Your task to perform on an android device: toggle priority inbox in the gmail app Image 0: 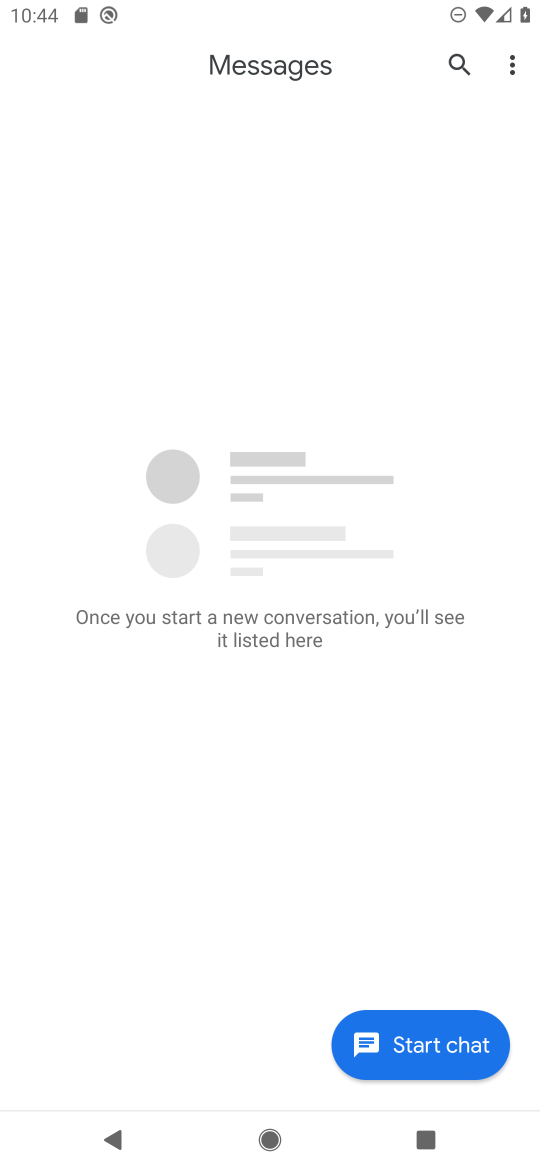
Step 0: press home button
Your task to perform on an android device: toggle priority inbox in the gmail app Image 1: 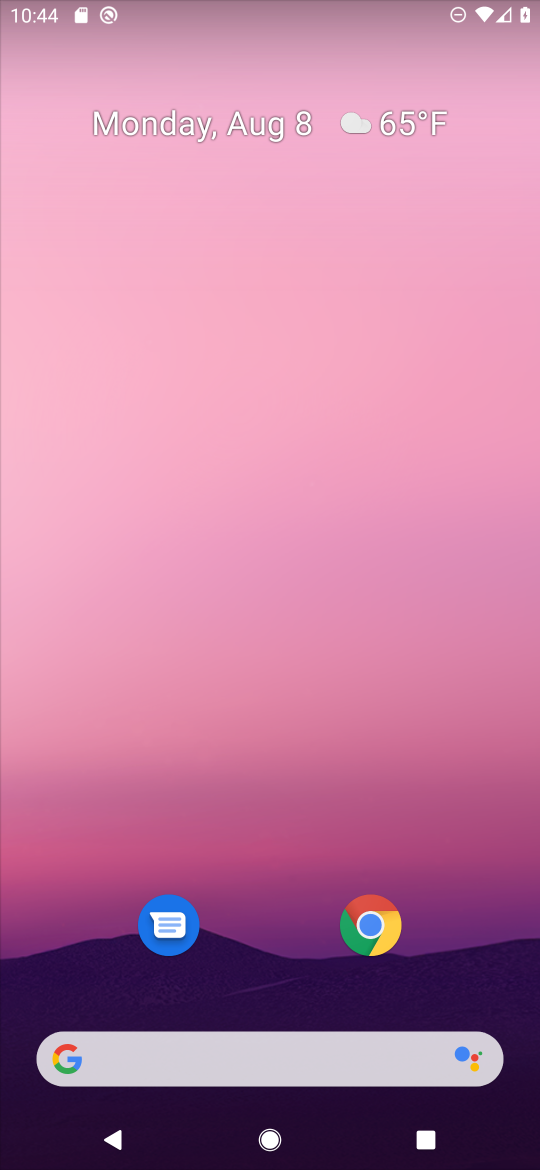
Step 1: click (268, 135)
Your task to perform on an android device: toggle priority inbox in the gmail app Image 2: 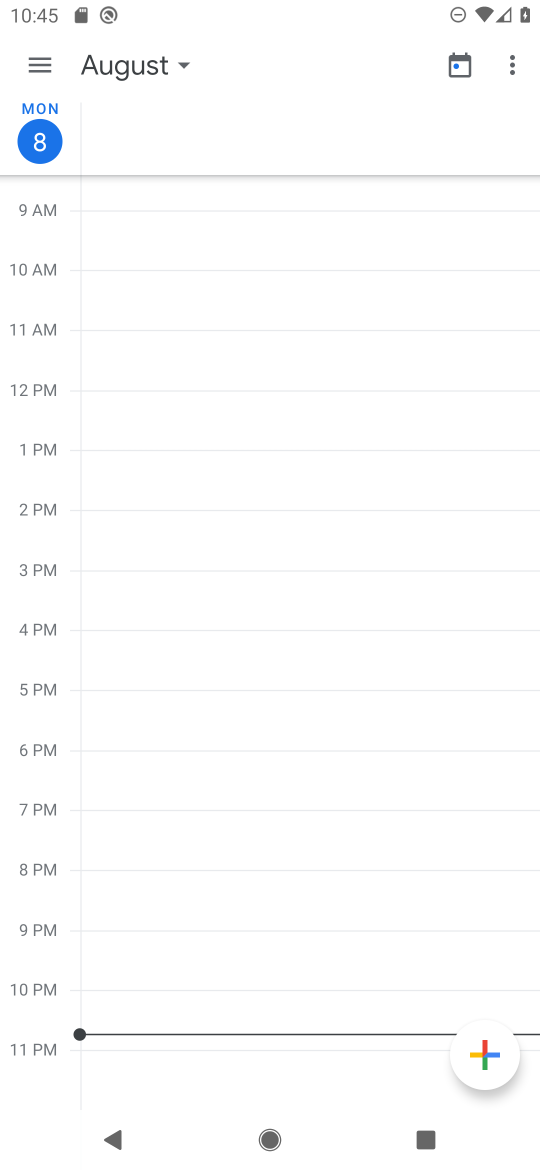
Step 2: press home button
Your task to perform on an android device: toggle priority inbox in the gmail app Image 3: 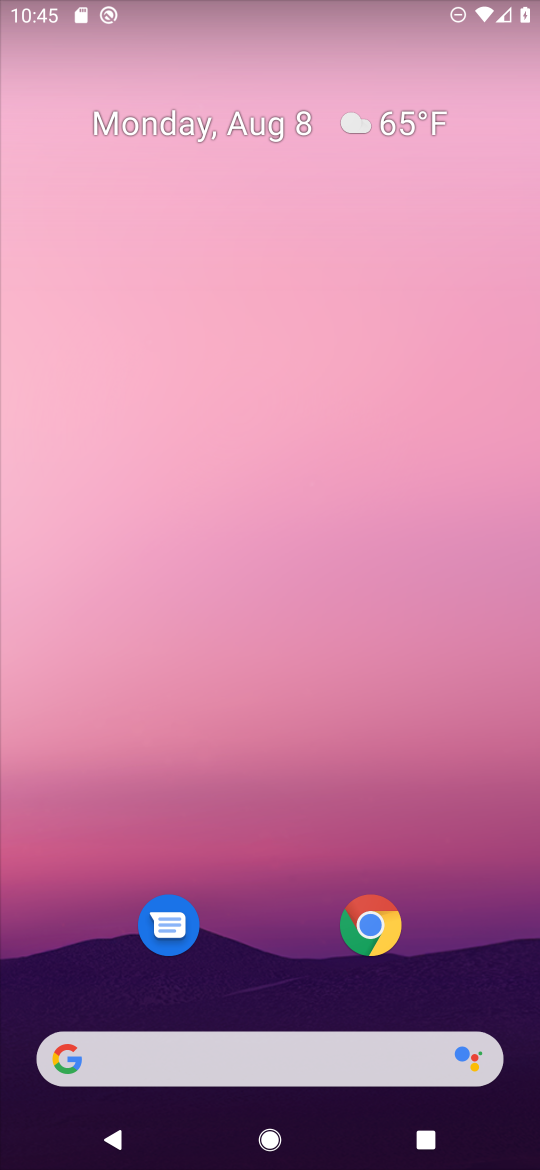
Step 3: drag from (255, 890) to (316, 88)
Your task to perform on an android device: toggle priority inbox in the gmail app Image 4: 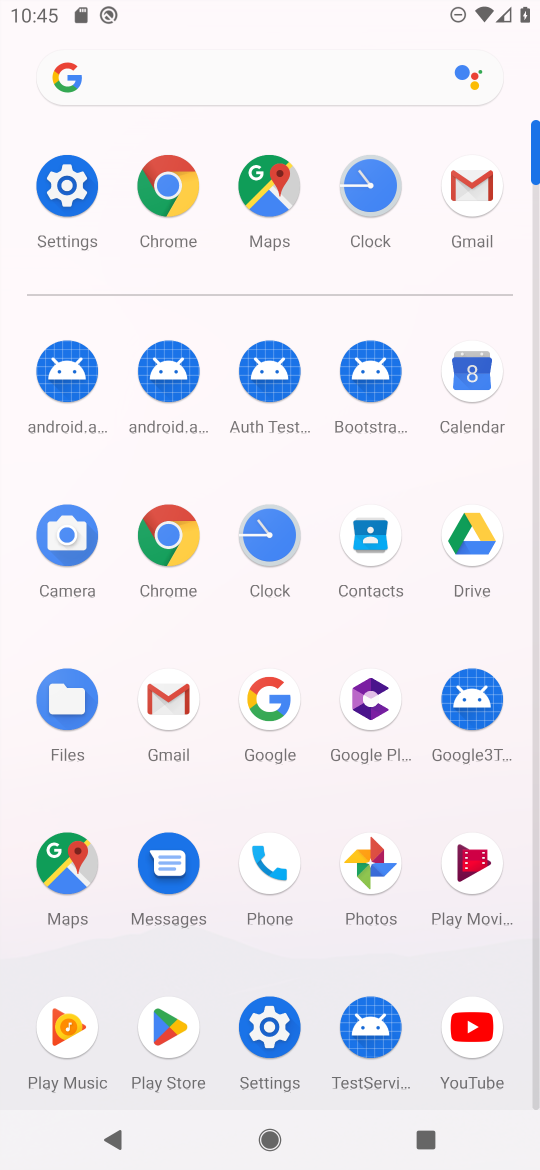
Step 4: click (169, 700)
Your task to perform on an android device: toggle priority inbox in the gmail app Image 5: 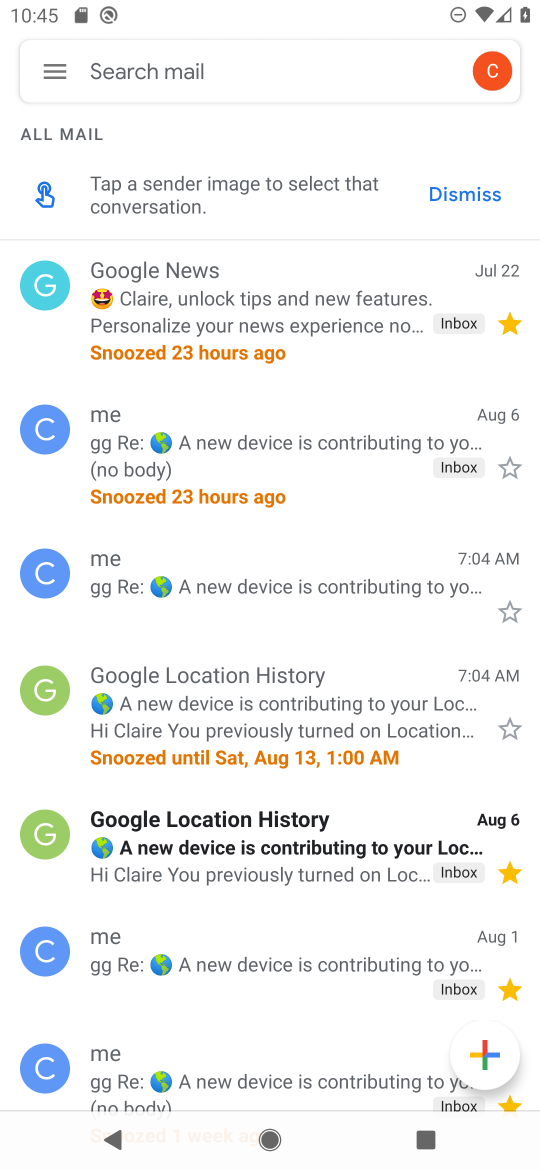
Step 5: click (49, 76)
Your task to perform on an android device: toggle priority inbox in the gmail app Image 6: 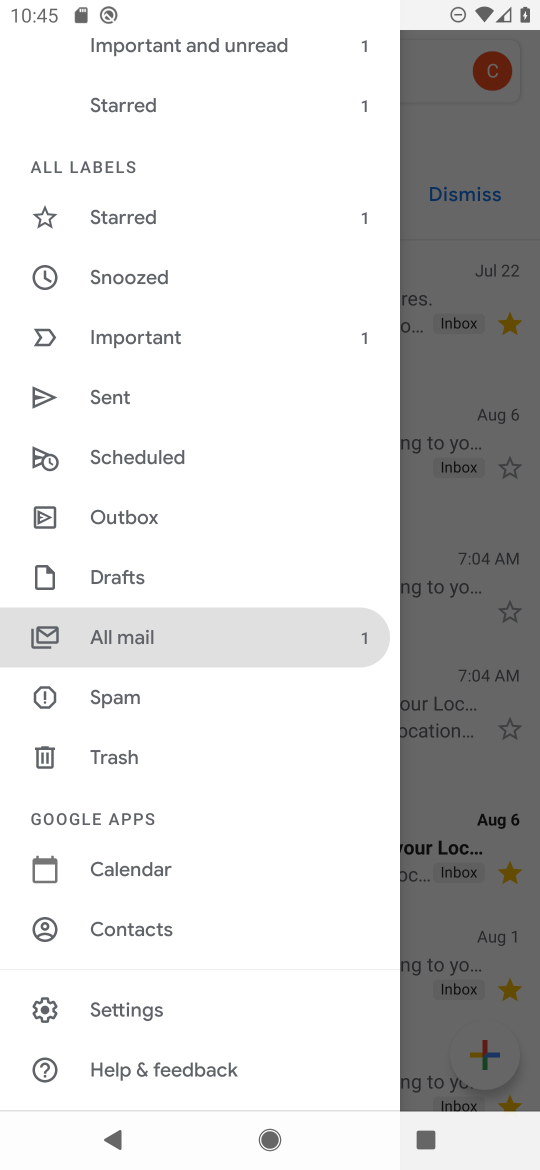
Step 6: drag from (206, 997) to (231, 355)
Your task to perform on an android device: toggle priority inbox in the gmail app Image 7: 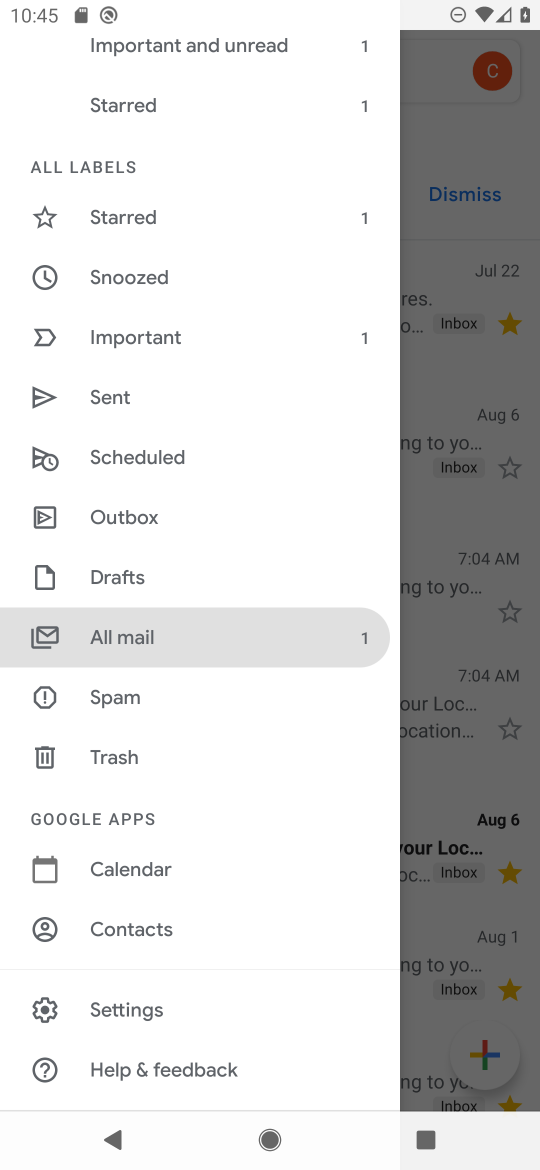
Step 7: click (127, 1019)
Your task to perform on an android device: toggle priority inbox in the gmail app Image 8: 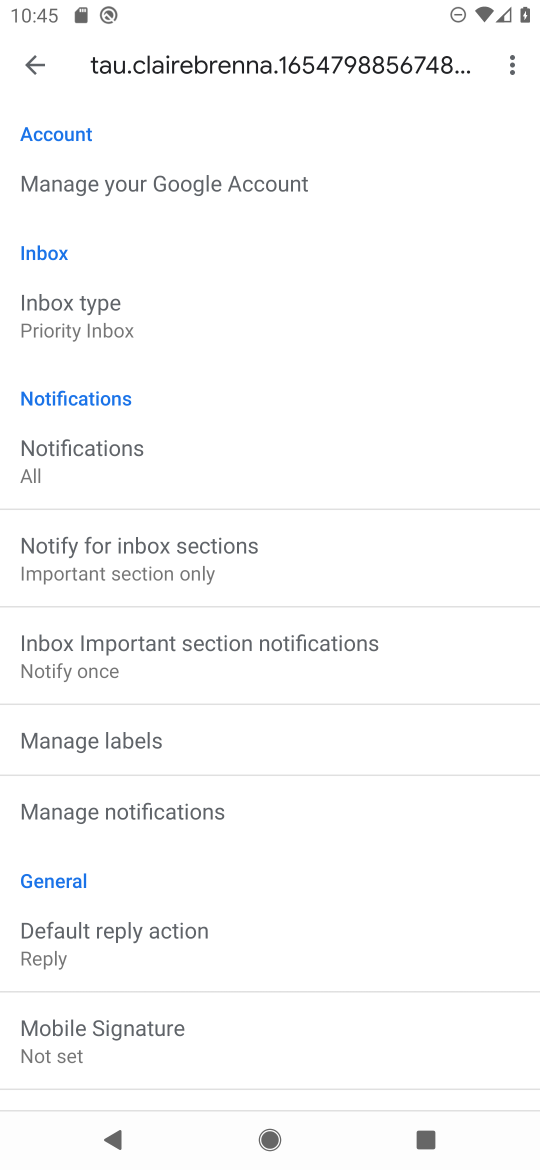
Step 8: click (126, 304)
Your task to perform on an android device: toggle priority inbox in the gmail app Image 9: 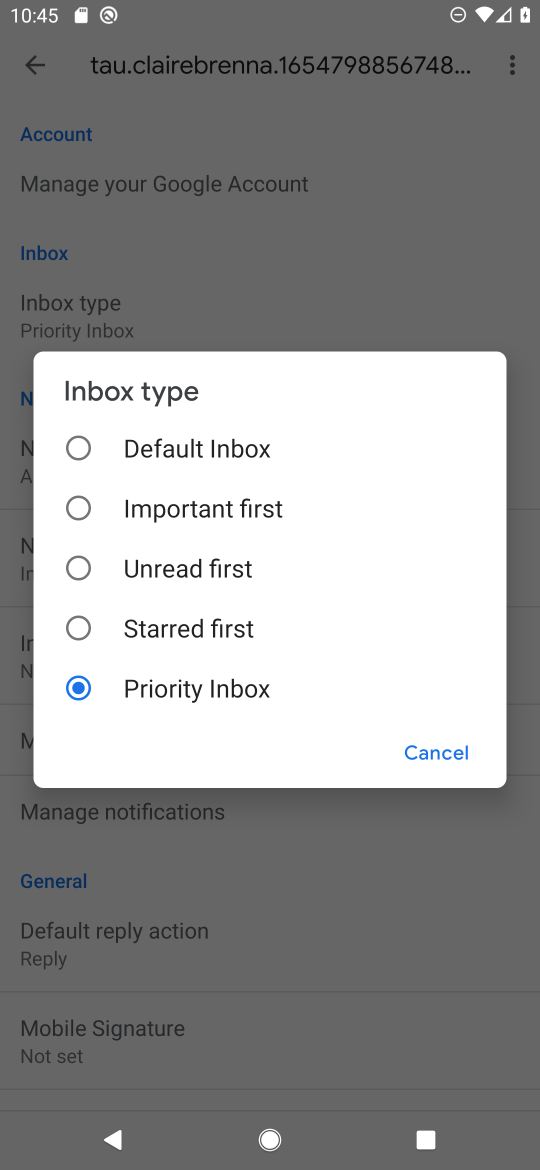
Step 9: click (188, 448)
Your task to perform on an android device: toggle priority inbox in the gmail app Image 10: 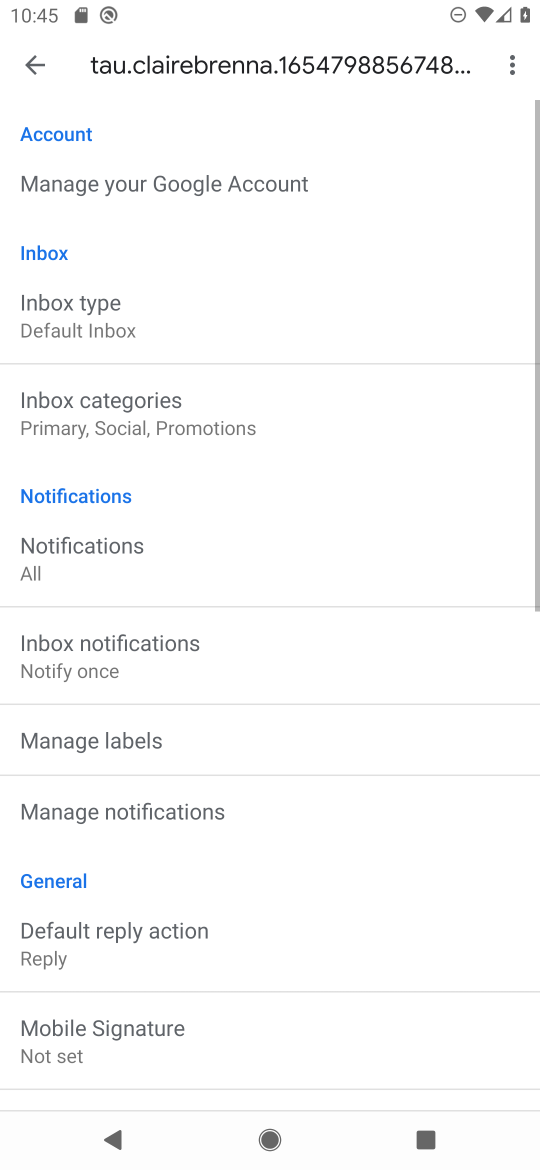
Step 10: task complete